Your task to perform on an android device: Go to notification settings Image 0: 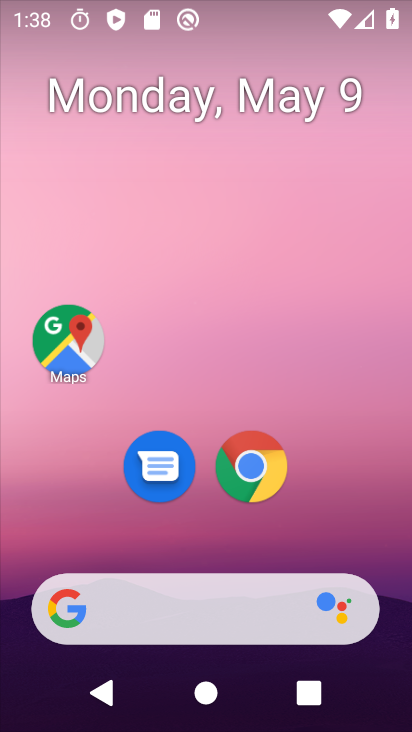
Step 0: drag from (266, 612) to (261, 406)
Your task to perform on an android device: Go to notification settings Image 1: 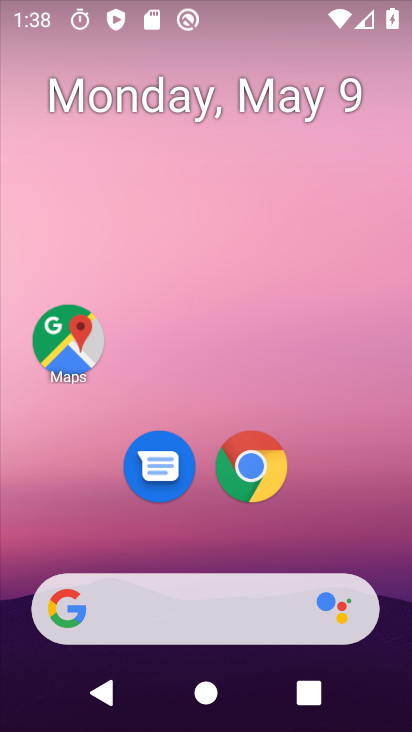
Step 1: drag from (289, 547) to (279, 266)
Your task to perform on an android device: Go to notification settings Image 2: 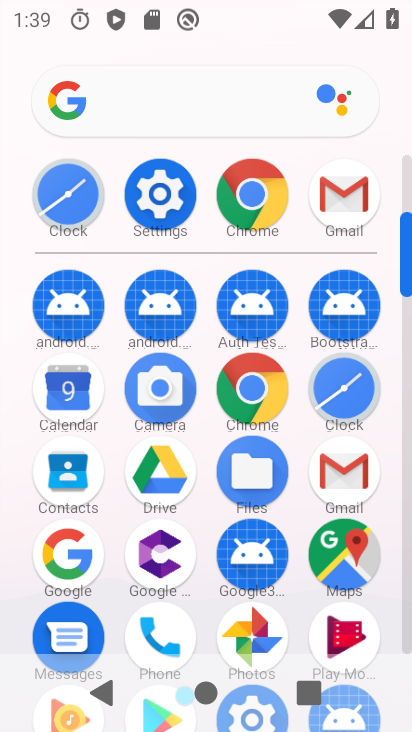
Step 2: click (163, 221)
Your task to perform on an android device: Go to notification settings Image 3: 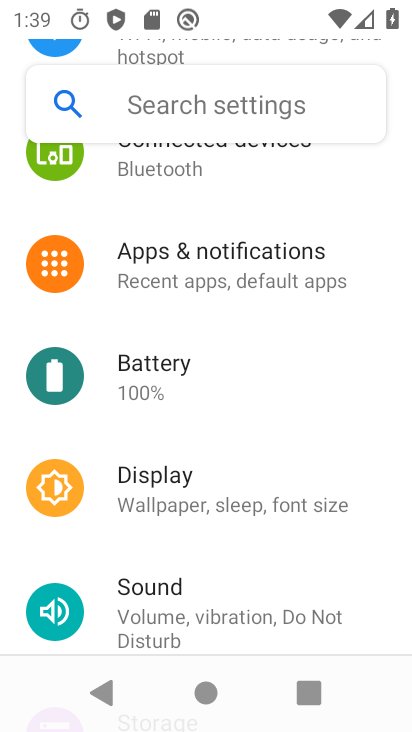
Step 3: click (296, 269)
Your task to perform on an android device: Go to notification settings Image 4: 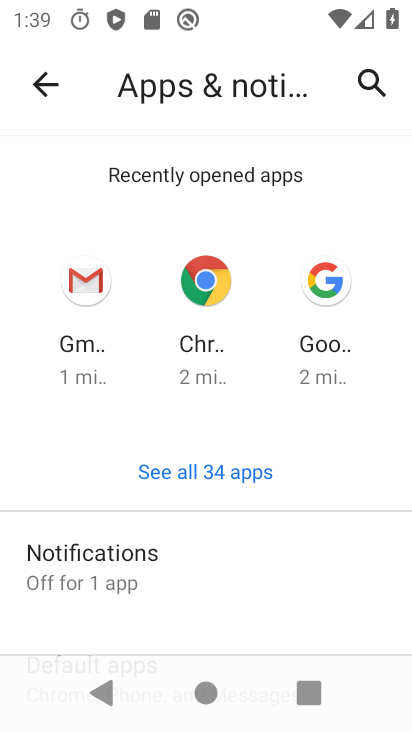
Step 4: click (227, 571)
Your task to perform on an android device: Go to notification settings Image 5: 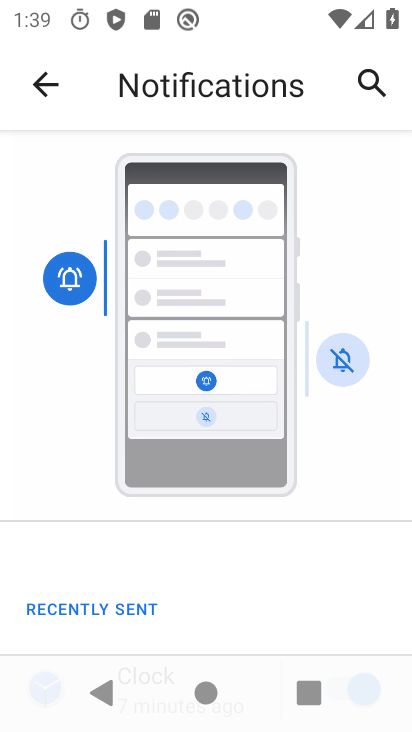
Step 5: task complete